Your task to perform on an android device: allow cookies in the chrome app Image 0: 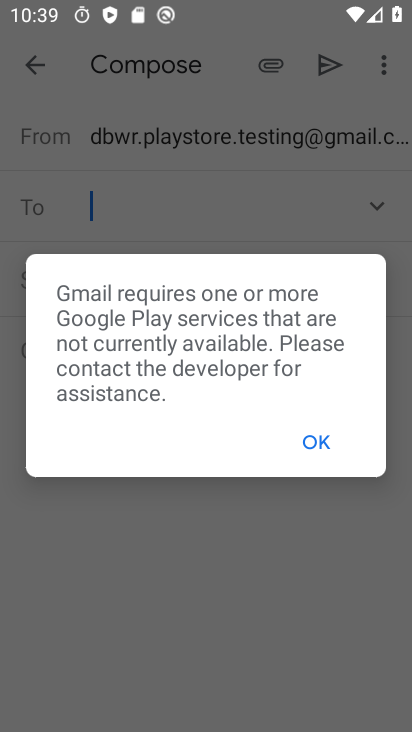
Step 0: click (316, 442)
Your task to perform on an android device: allow cookies in the chrome app Image 1: 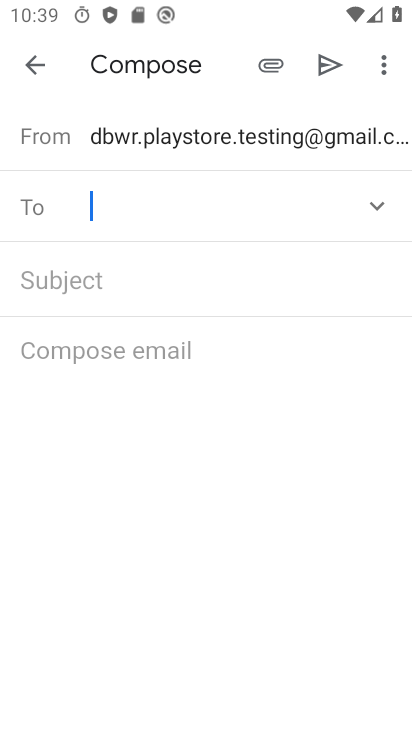
Step 1: click (33, 68)
Your task to perform on an android device: allow cookies in the chrome app Image 2: 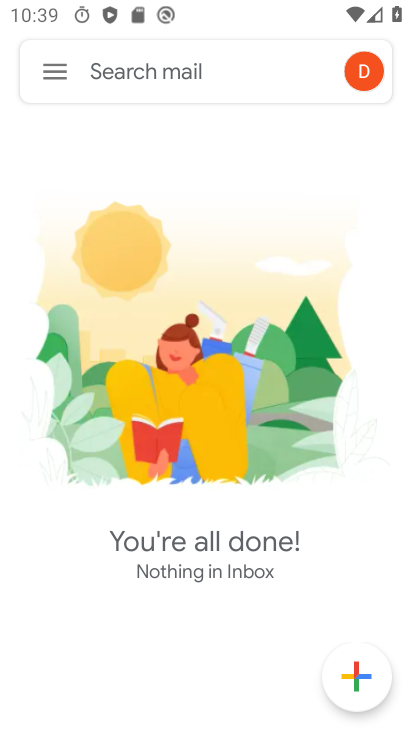
Step 2: click (46, 67)
Your task to perform on an android device: allow cookies in the chrome app Image 3: 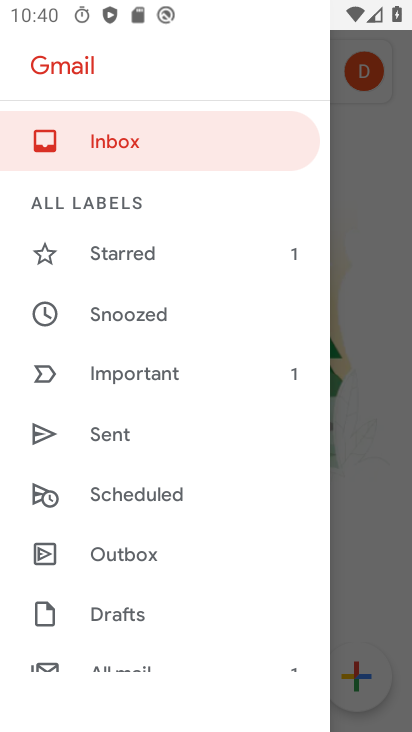
Step 3: drag from (141, 482) to (167, 141)
Your task to perform on an android device: allow cookies in the chrome app Image 4: 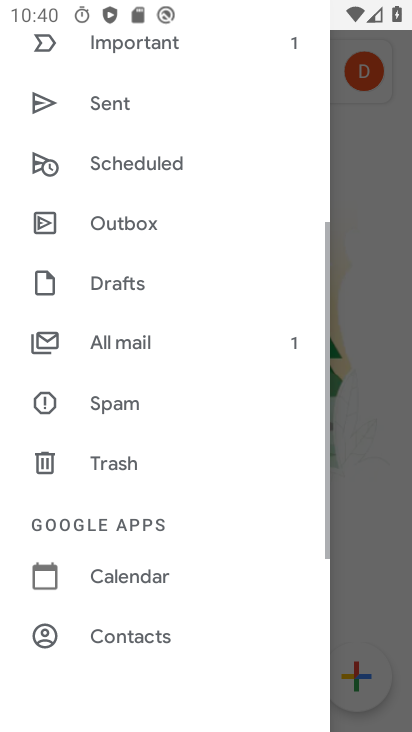
Step 4: drag from (200, 429) to (199, 169)
Your task to perform on an android device: allow cookies in the chrome app Image 5: 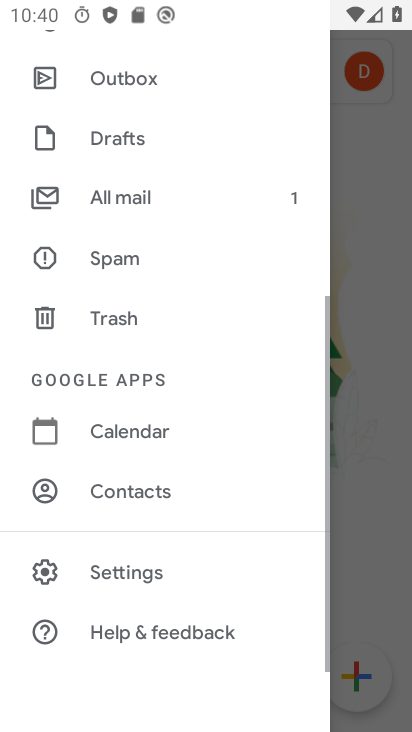
Step 5: drag from (163, 462) to (168, 172)
Your task to perform on an android device: allow cookies in the chrome app Image 6: 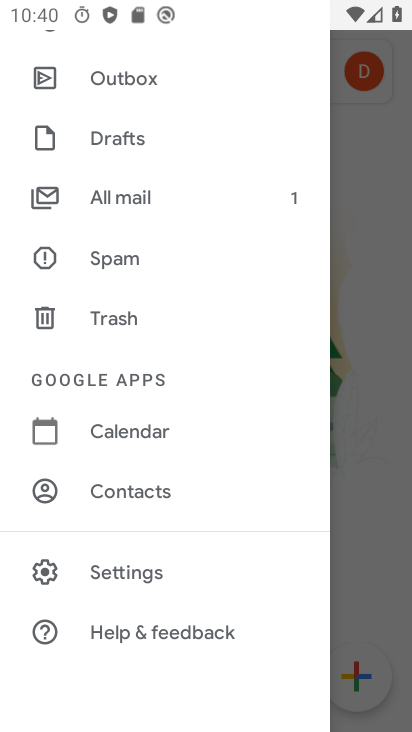
Step 6: click (121, 568)
Your task to perform on an android device: allow cookies in the chrome app Image 7: 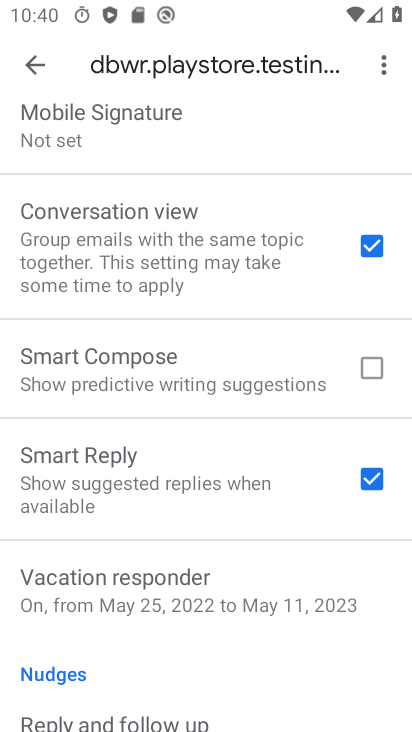
Step 7: drag from (222, 602) to (235, 142)
Your task to perform on an android device: allow cookies in the chrome app Image 8: 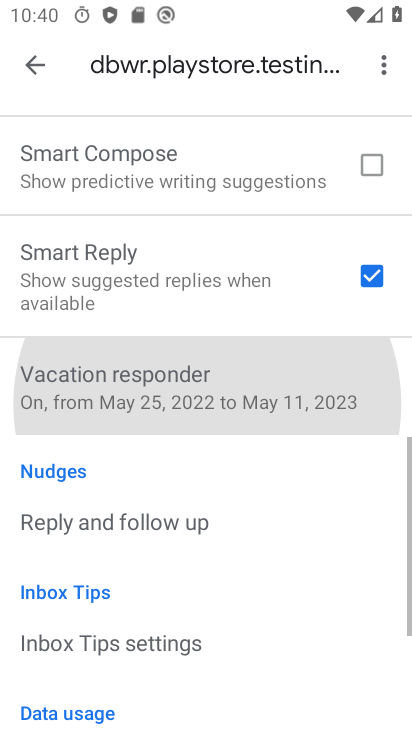
Step 8: drag from (306, 437) to (300, 142)
Your task to perform on an android device: allow cookies in the chrome app Image 9: 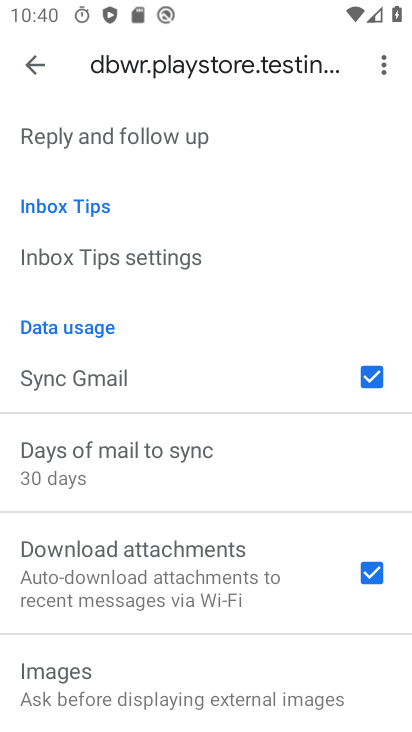
Step 9: drag from (126, 539) to (132, 138)
Your task to perform on an android device: allow cookies in the chrome app Image 10: 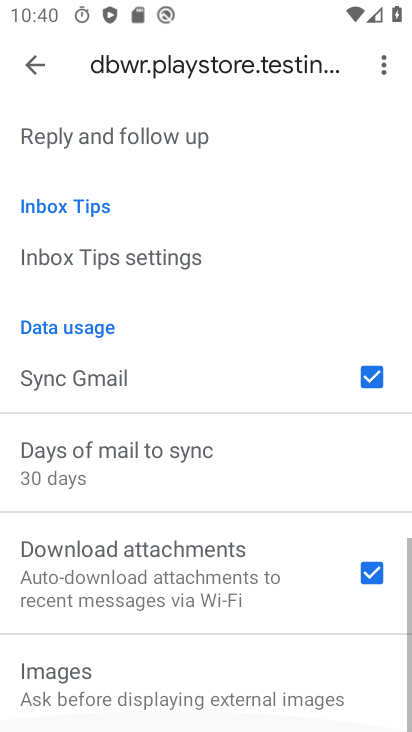
Step 10: drag from (209, 472) to (218, 163)
Your task to perform on an android device: allow cookies in the chrome app Image 11: 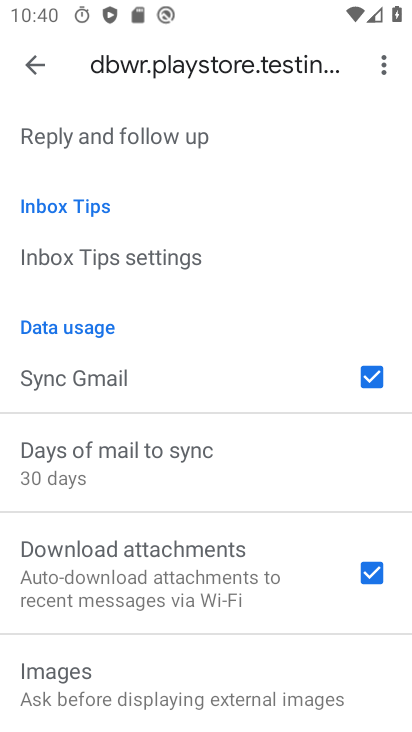
Step 11: click (270, 179)
Your task to perform on an android device: allow cookies in the chrome app Image 12: 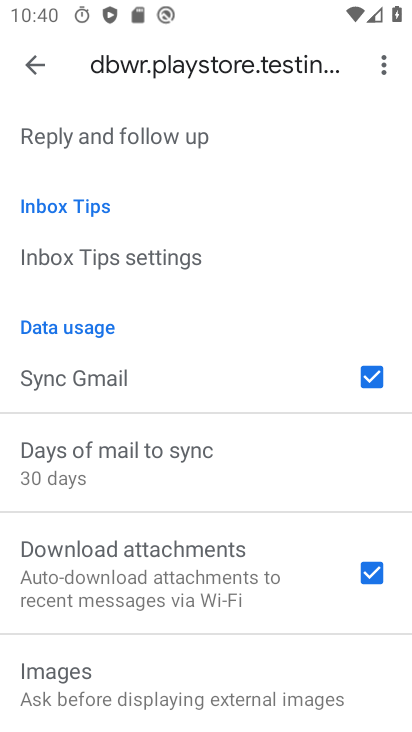
Step 12: click (189, 536)
Your task to perform on an android device: allow cookies in the chrome app Image 13: 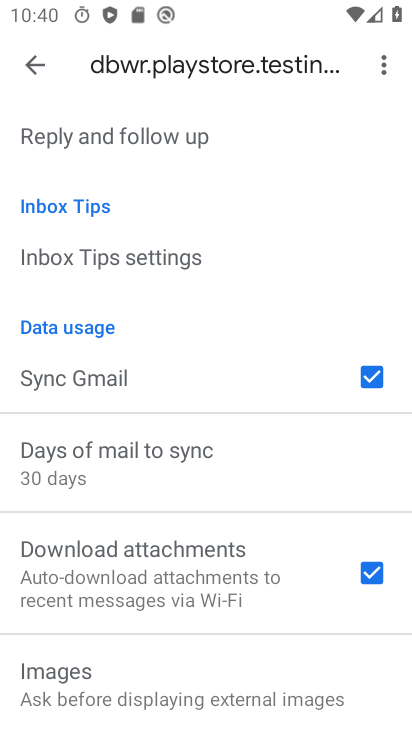
Step 13: drag from (183, 258) to (240, 603)
Your task to perform on an android device: allow cookies in the chrome app Image 14: 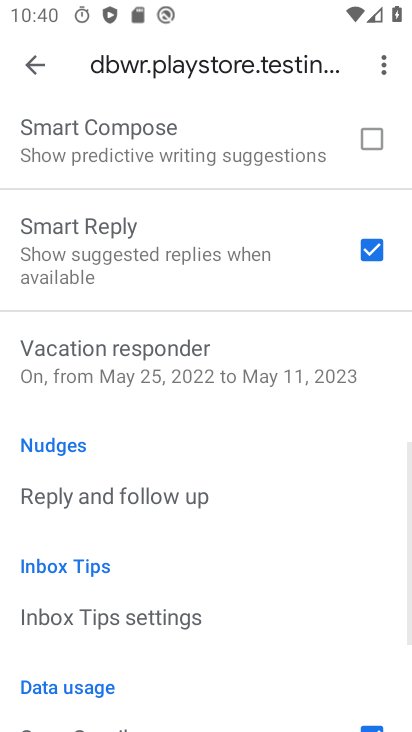
Step 14: click (260, 691)
Your task to perform on an android device: allow cookies in the chrome app Image 15: 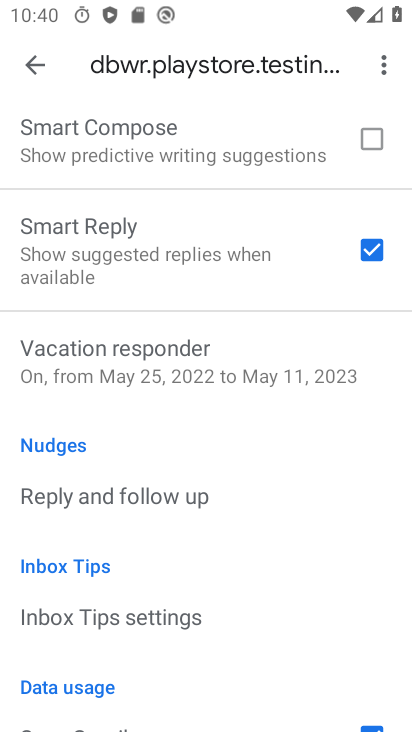
Step 15: drag from (195, 402) to (227, 614)
Your task to perform on an android device: allow cookies in the chrome app Image 16: 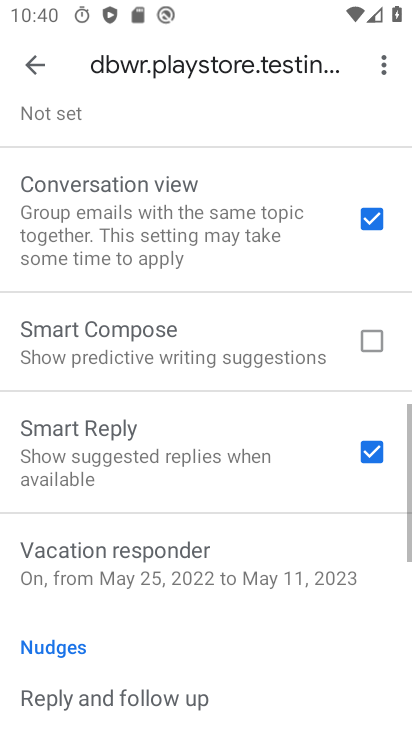
Step 16: drag from (172, 179) to (237, 602)
Your task to perform on an android device: allow cookies in the chrome app Image 17: 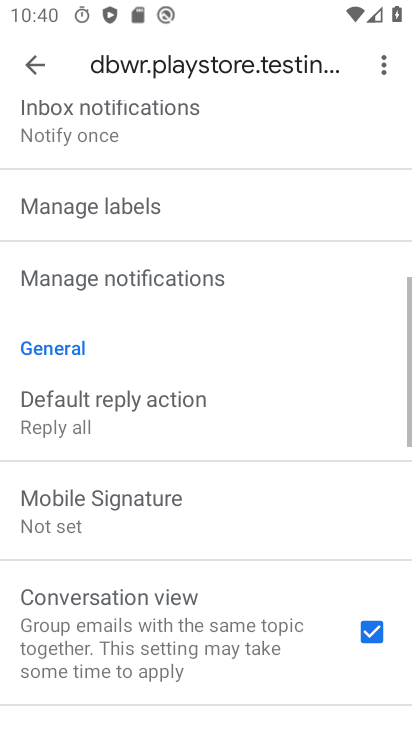
Step 17: drag from (171, 265) to (173, 685)
Your task to perform on an android device: allow cookies in the chrome app Image 18: 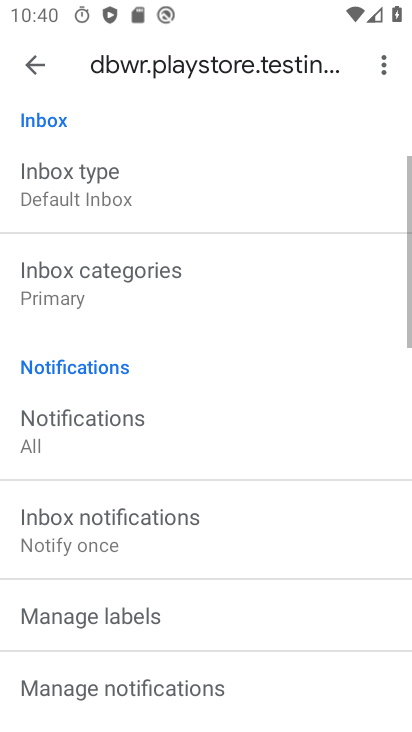
Step 18: drag from (98, 312) to (212, 670)
Your task to perform on an android device: allow cookies in the chrome app Image 19: 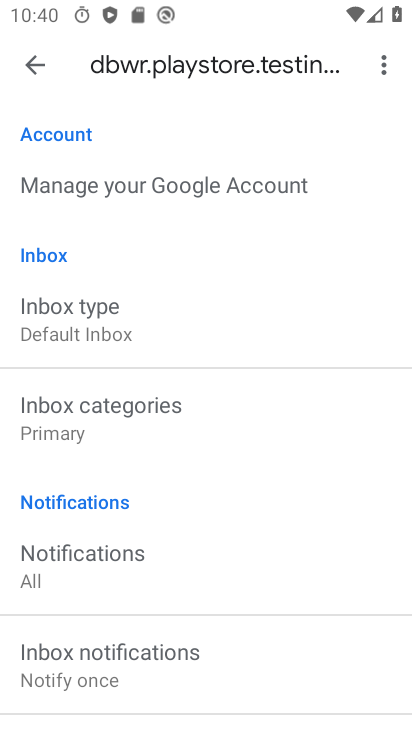
Step 19: click (34, 63)
Your task to perform on an android device: allow cookies in the chrome app Image 20: 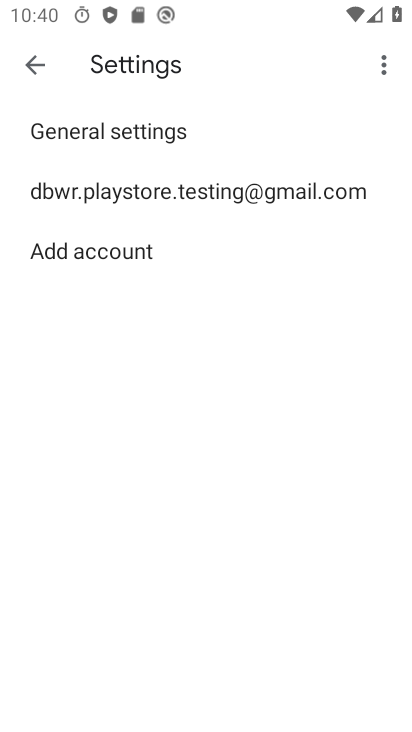
Step 20: click (23, 64)
Your task to perform on an android device: allow cookies in the chrome app Image 21: 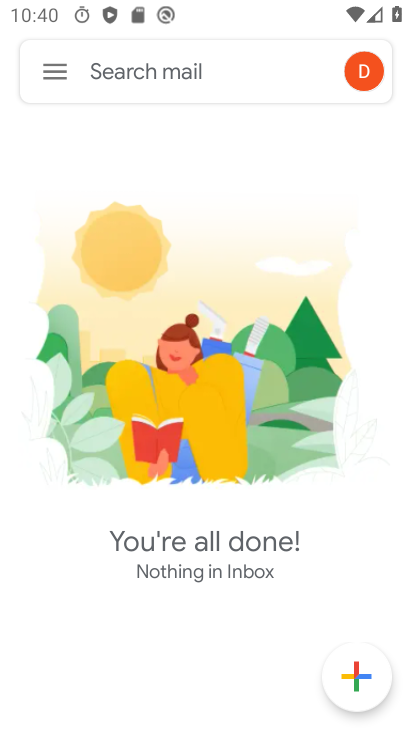
Step 21: press home button
Your task to perform on an android device: allow cookies in the chrome app Image 22: 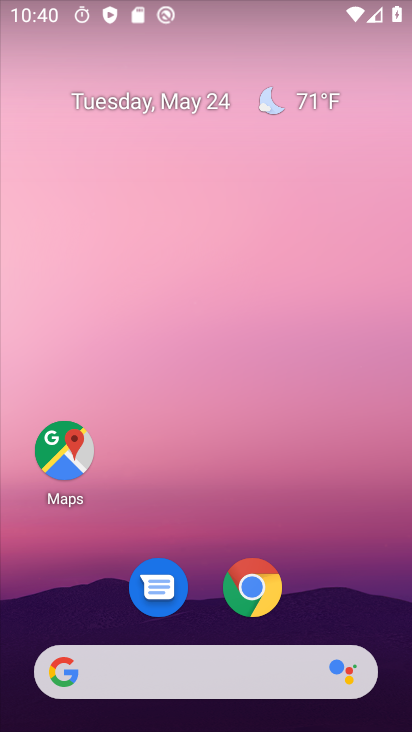
Step 22: drag from (332, 621) to (189, 67)
Your task to perform on an android device: allow cookies in the chrome app Image 23: 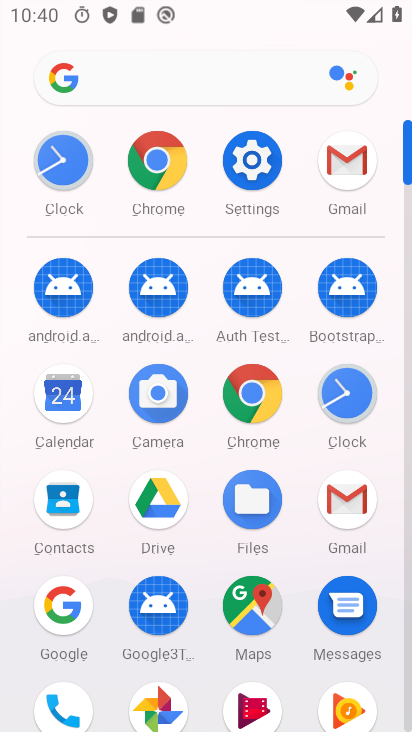
Step 23: click (155, 164)
Your task to perform on an android device: allow cookies in the chrome app Image 24: 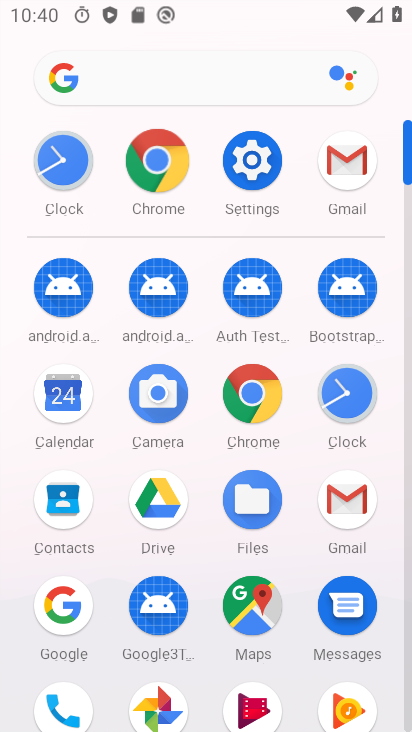
Step 24: click (155, 164)
Your task to perform on an android device: allow cookies in the chrome app Image 25: 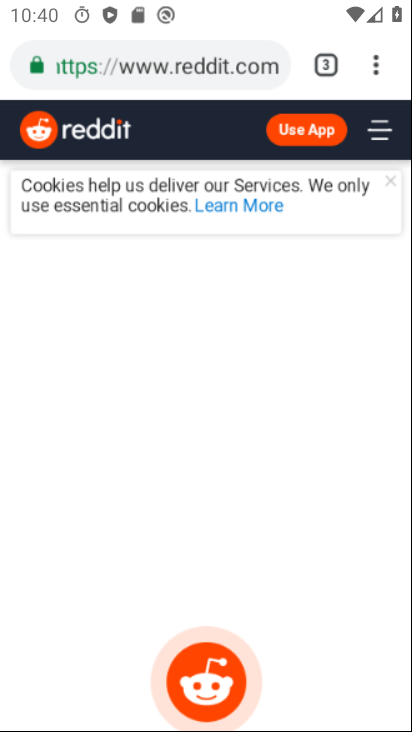
Step 25: click (155, 164)
Your task to perform on an android device: allow cookies in the chrome app Image 26: 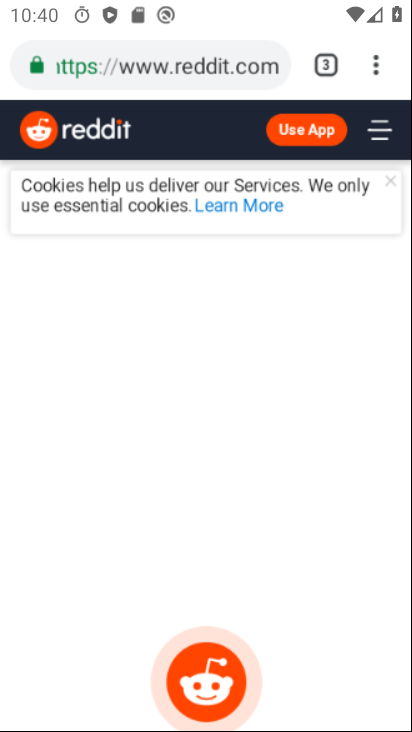
Step 26: click (156, 161)
Your task to perform on an android device: allow cookies in the chrome app Image 27: 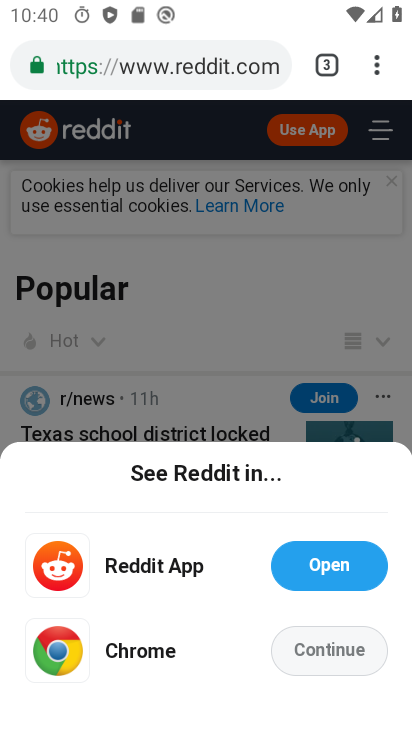
Step 27: drag from (380, 63) to (410, 421)
Your task to perform on an android device: allow cookies in the chrome app Image 28: 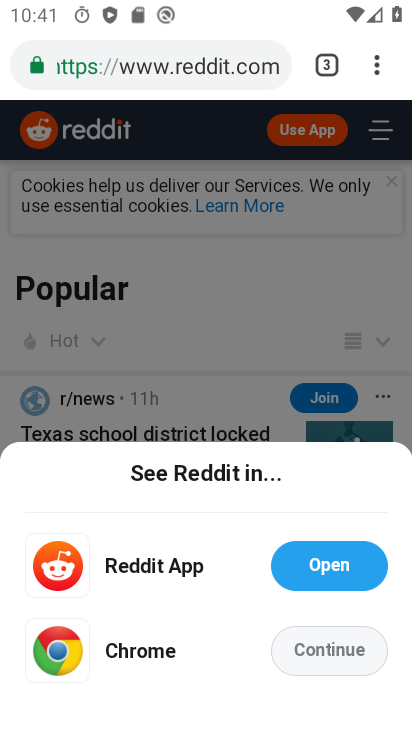
Step 28: click (374, 65)
Your task to perform on an android device: allow cookies in the chrome app Image 29: 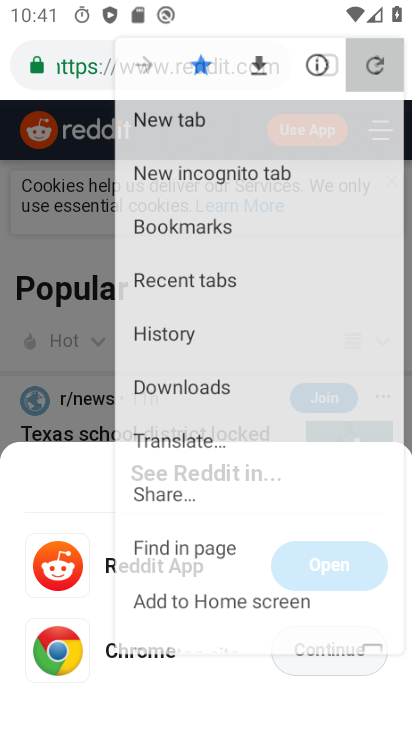
Step 29: drag from (374, 65) to (149, 652)
Your task to perform on an android device: allow cookies in the chrome app Image 30: 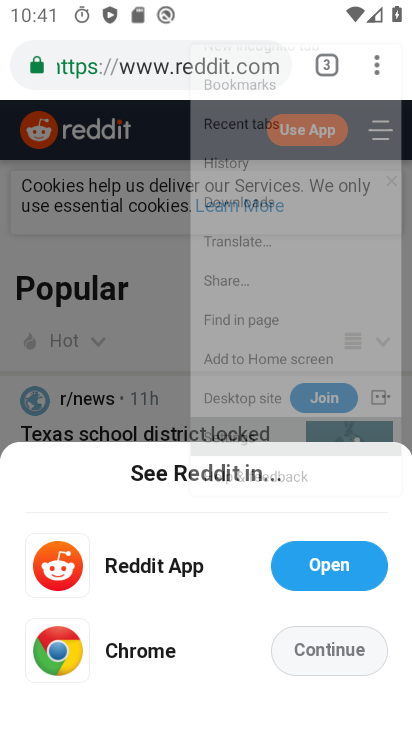
Step 30: click (150, 651)
Your task to perform on an android device: allow cookies in the chrome app Image 31: 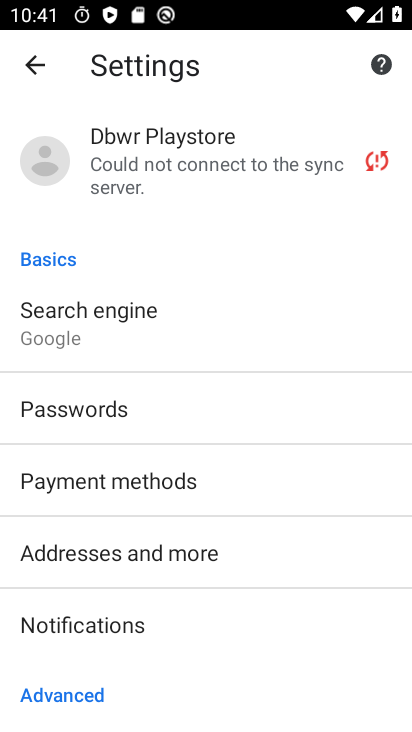
Step 31: drag from (148, 540) to (179, 190)
Your task to perform on an android device: allow cookies in the chrome app Image 32: 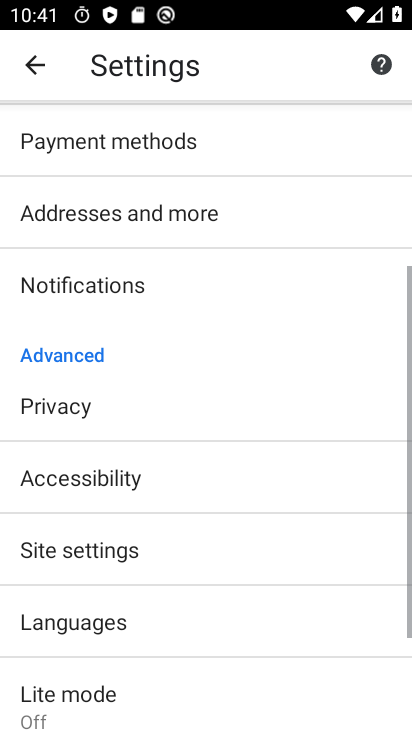
Step 32: drag from (188, 448) to (187, 208)
Your task to perform on an android device: allow cookies in the chrome app Image 33: 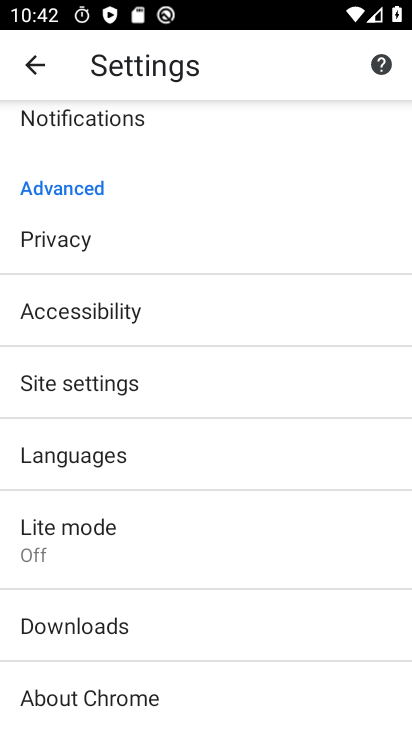
Step 33: drag from (160, 434) to (160, 84)
Your task to perform on an android device: allow cookies in the chrome app Image 34: 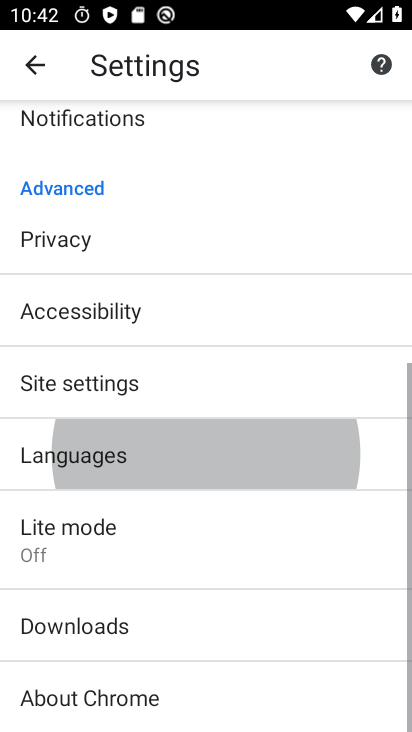
Step 34: click (174, 137)
Your task to perform on an android device: allow cookies in the chrome app Image 35: 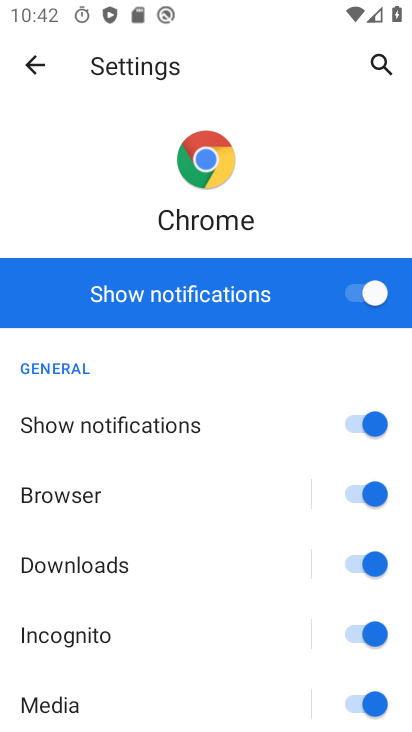
Step 35: click (23, 65)
Your task to perform on an android device: allow cookies in the chrome app Image 36: 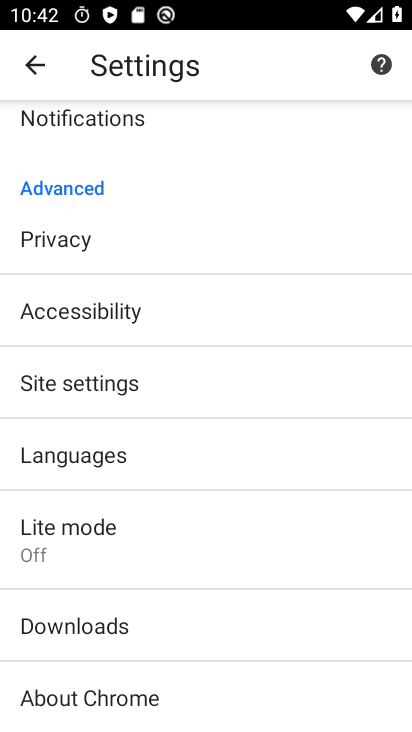
Step 36: click (79, 379)
Your task to perform on an android device: allow cookies in the chrome app Image 37: 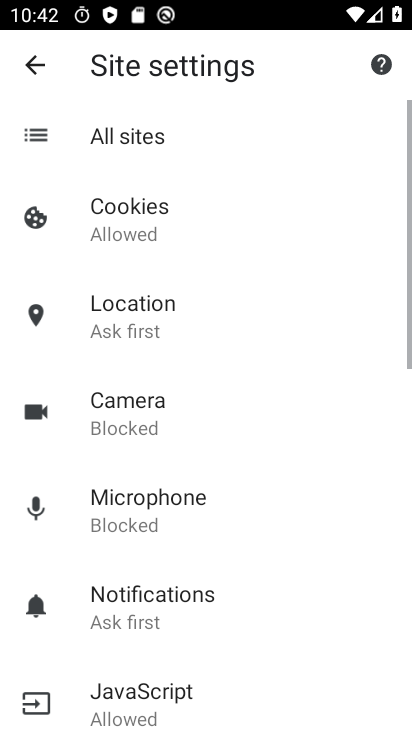
Step 37: click (79, 379)
Your task to perform on an android device: allow cookies in the chrome app Image 38: 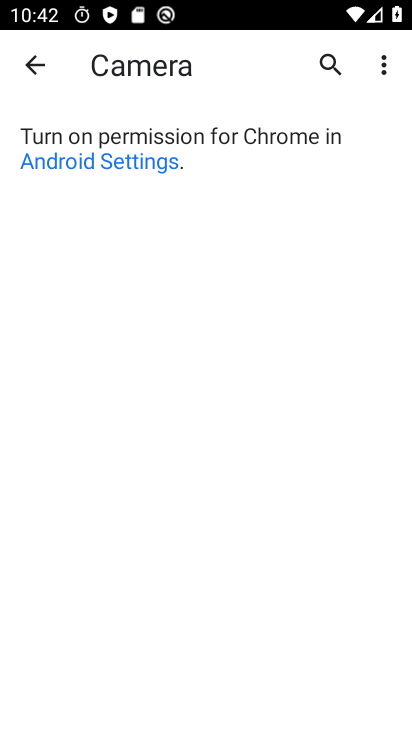
Step 38: click (115, 231)
Your task to perform on an android device: allow cookies in the chrome app Image 39: 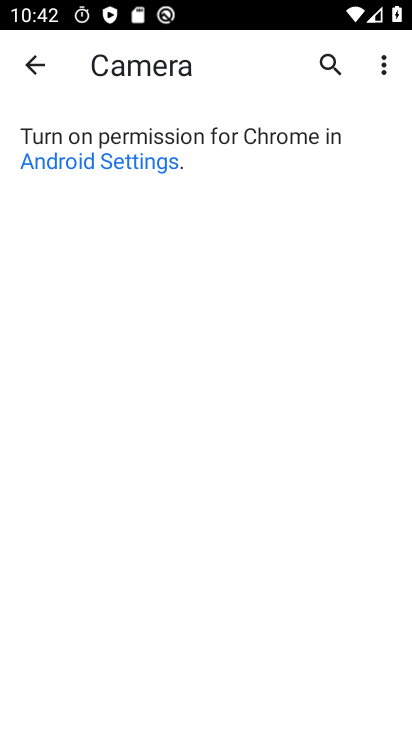
Step 39: click (115, 230)
Your task to perform on an android device: allow cookies in the chrome app Image 40: 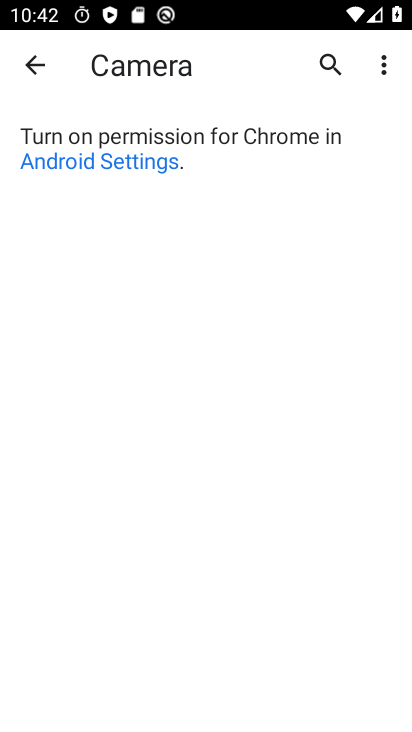
Step 40: click (115, 229)
Your task to perform on an android device: allow cookies in the chrome app Image 41: 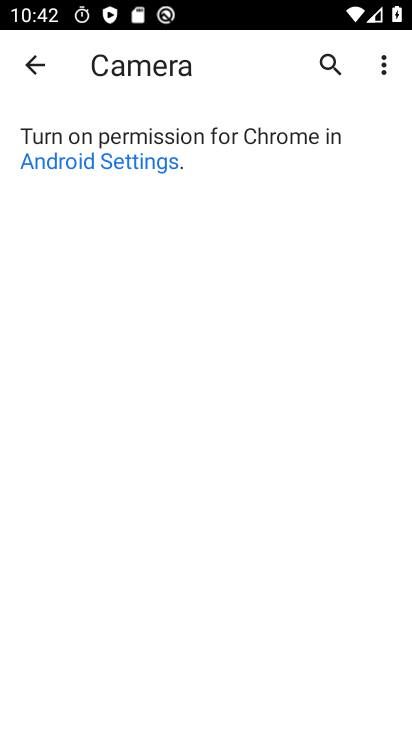
Step 41: task complete